Your task to perform on an android device: Clear all items from cart on costco.com. Add rayovac triple a to the cart on costco.com Image 0: 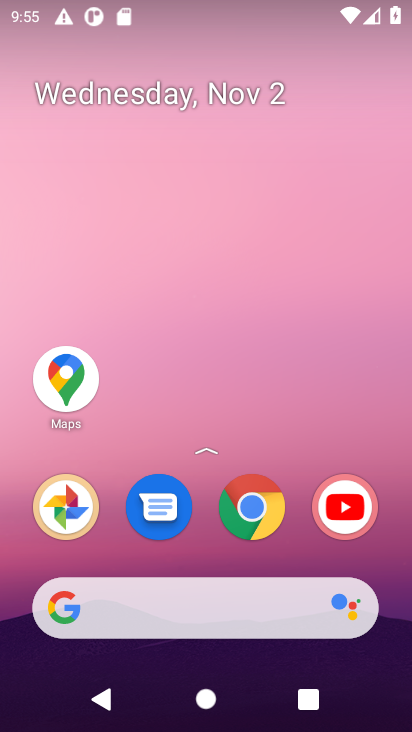
Step 0: task complete